Your task to perform on an android device: Go to calendar. Show me events next week Image 0: 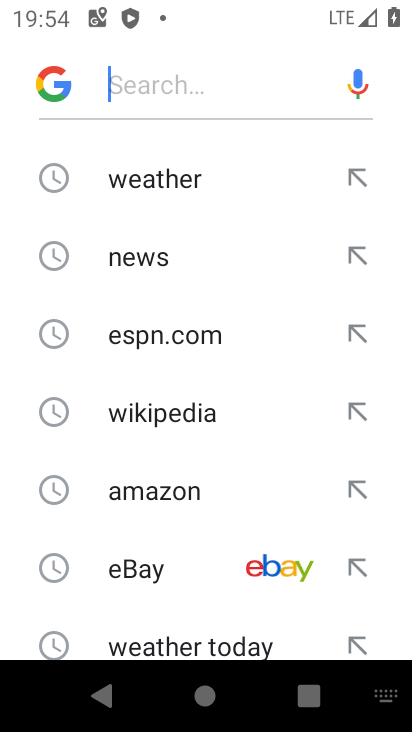
Step 0: press home button
Your task to perform on an android device: Go to calendar. Show me events next week Image 1: 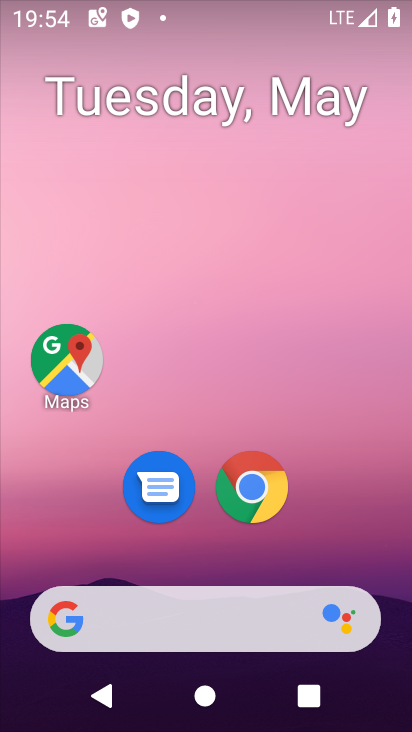
Step 1: drag from (344, 518) to (256, 126)
Your task to perform on an android device: Go to calendar. Show me events next week Image 2: 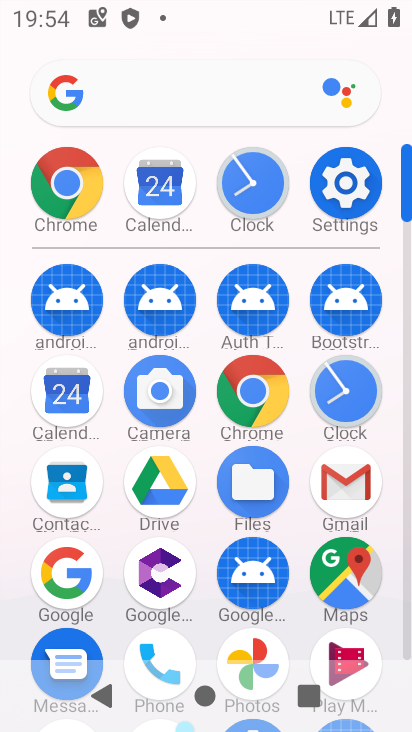
Step 2: click (65, 404)
Your task to perform on an android device: Go to calendar. Show me events next week Image 3: 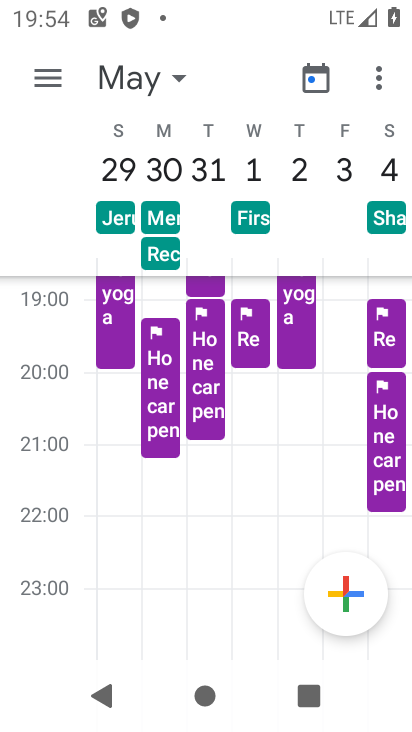
Step 3: click (180, 70)
Your task to perform on an android device: Go to calendar. Show me events next week Image 4: 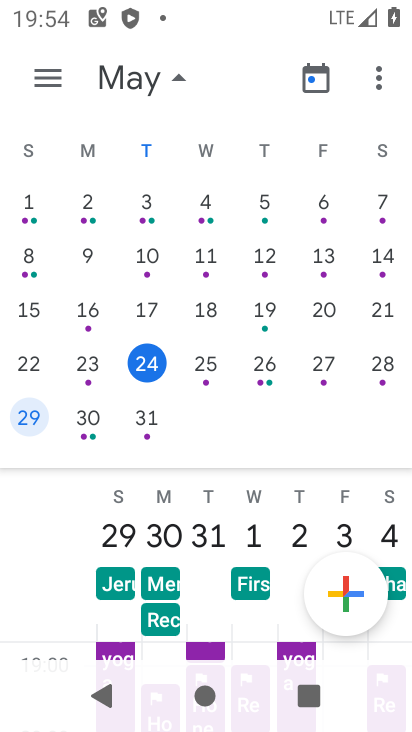
Step 4: click (142, 417)
Your task to perform on an android device: Go to calendar. Show me events next week Image 5: 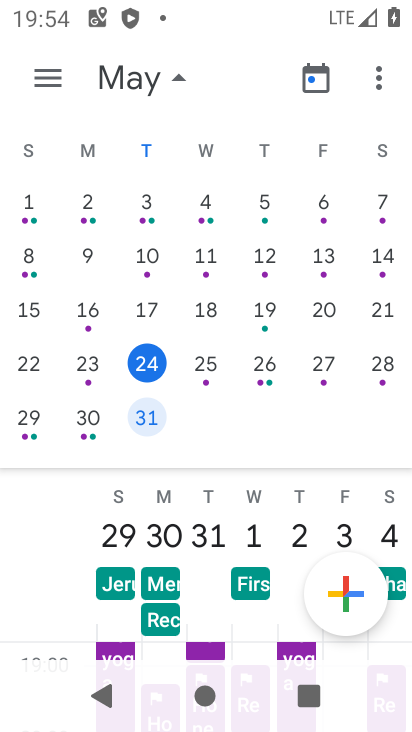
Step 5: task complete